Your task to perform on an android device: Open the web browser Image 0: 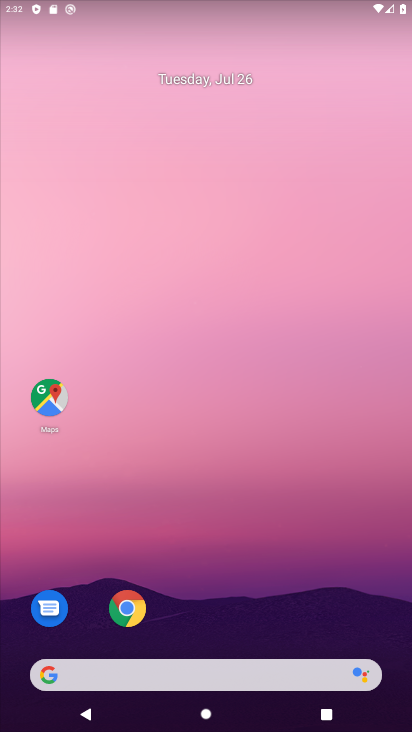
Step 0: click (135, 609)
Your task to perform on an android device: Open the web browser Image 1: 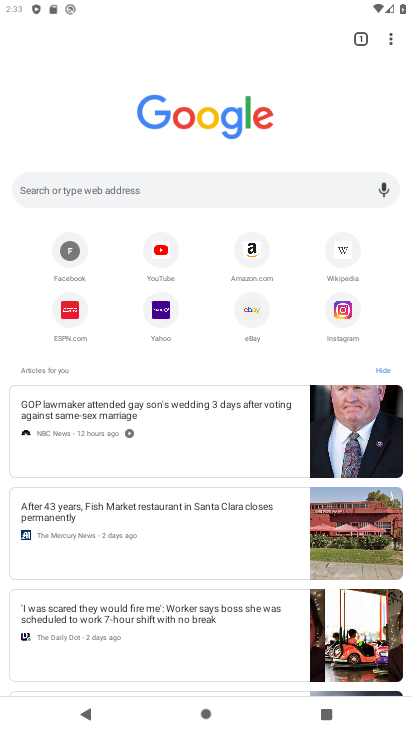
Step 1: task complete